Your task to perform on an android device: toggle wifi Image 0: 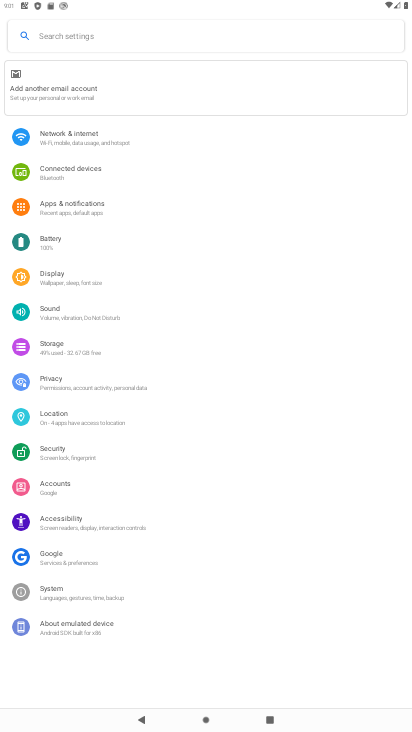
Step 0: task complete